Your task to perform on an android device: Open maps Image 0: 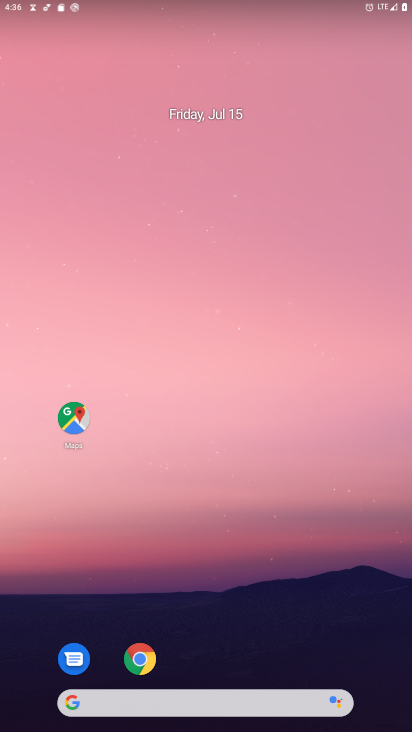
Step 0: drag from (215, 641) to (254, 82)
Your task to perform on an android device: Open maps Image 1: 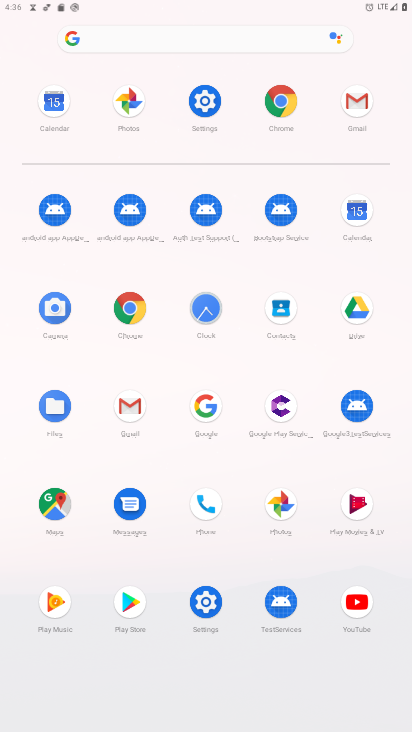
Step 1: click (53, 508)
Your task to perform on an android device: Open maps Image 2: 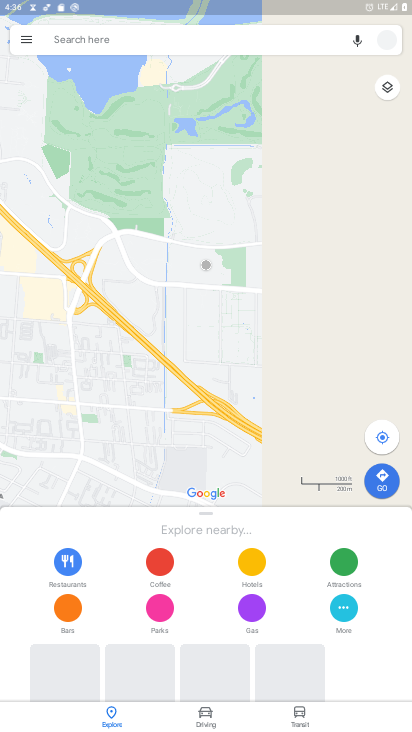
Step 2: task complete